Your task to perform on an android device: Search for "acer nitro" on bestbuy, select the first entry, add it to the cart, then select checkout. Image 0: 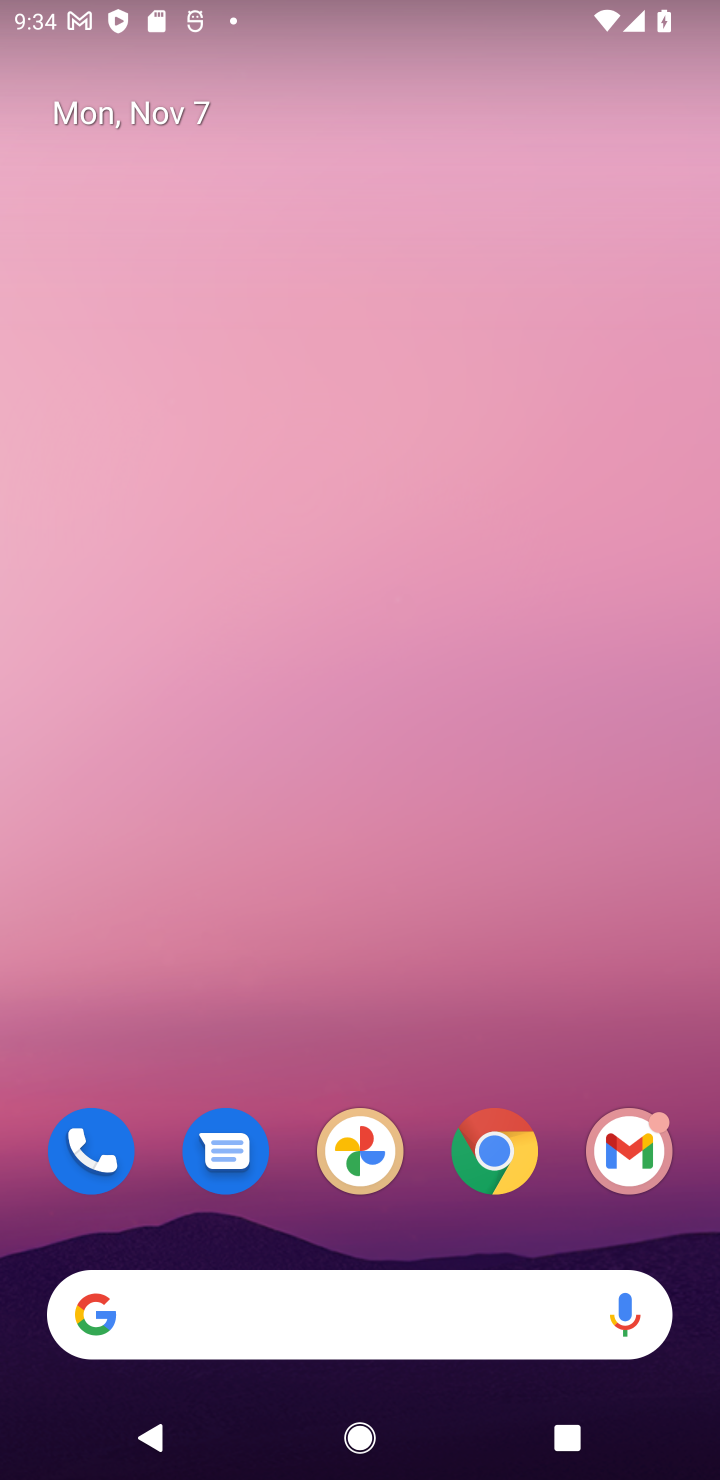
Step 0: click (490, 1162)
Your task to perform on an android device: Search for "acer nitro" on bestbuy, select the first entry, add it to the cart, then select checkout. Image 1: 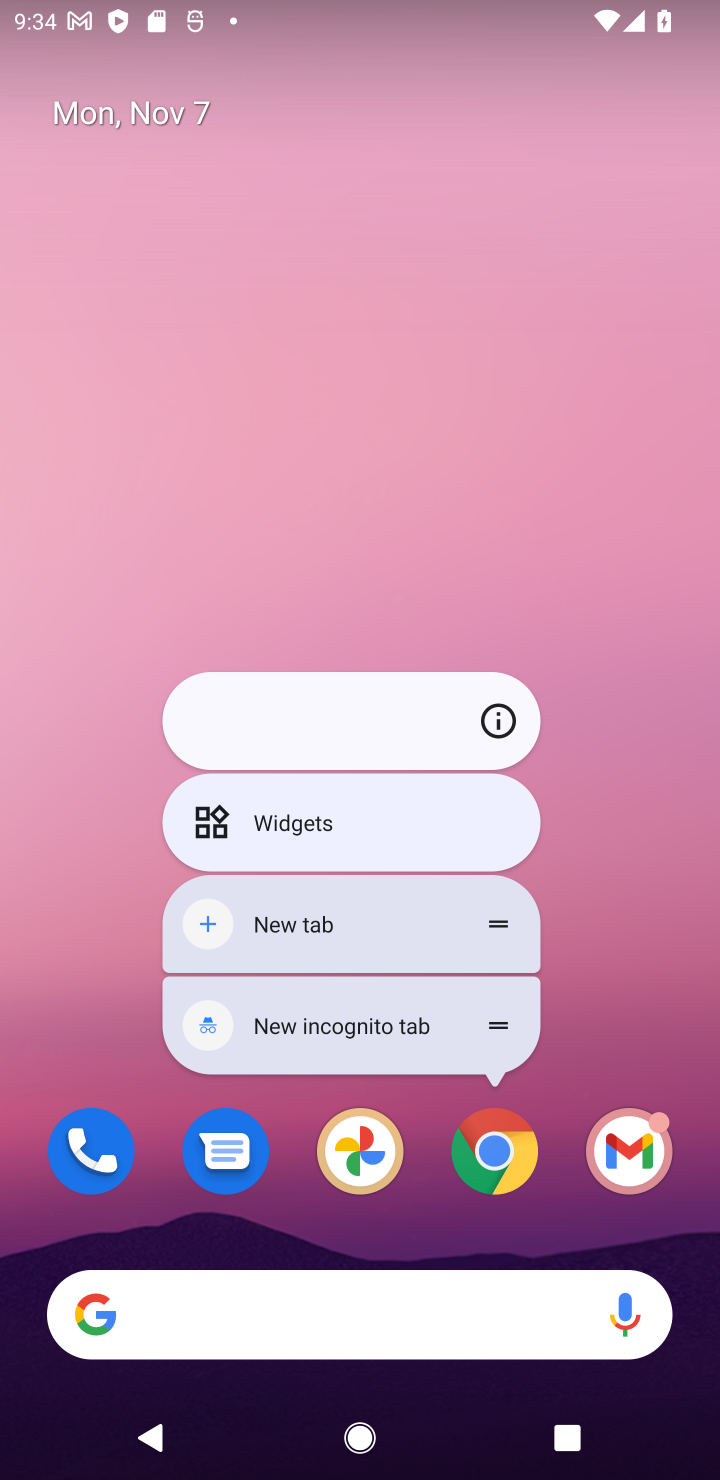
Step 1: click (490, 1164)
Your task to perform on an android device: Search for "acer nitro" on bestbuy, select the first entry, add it to the cart, then select checkout. Image 2: 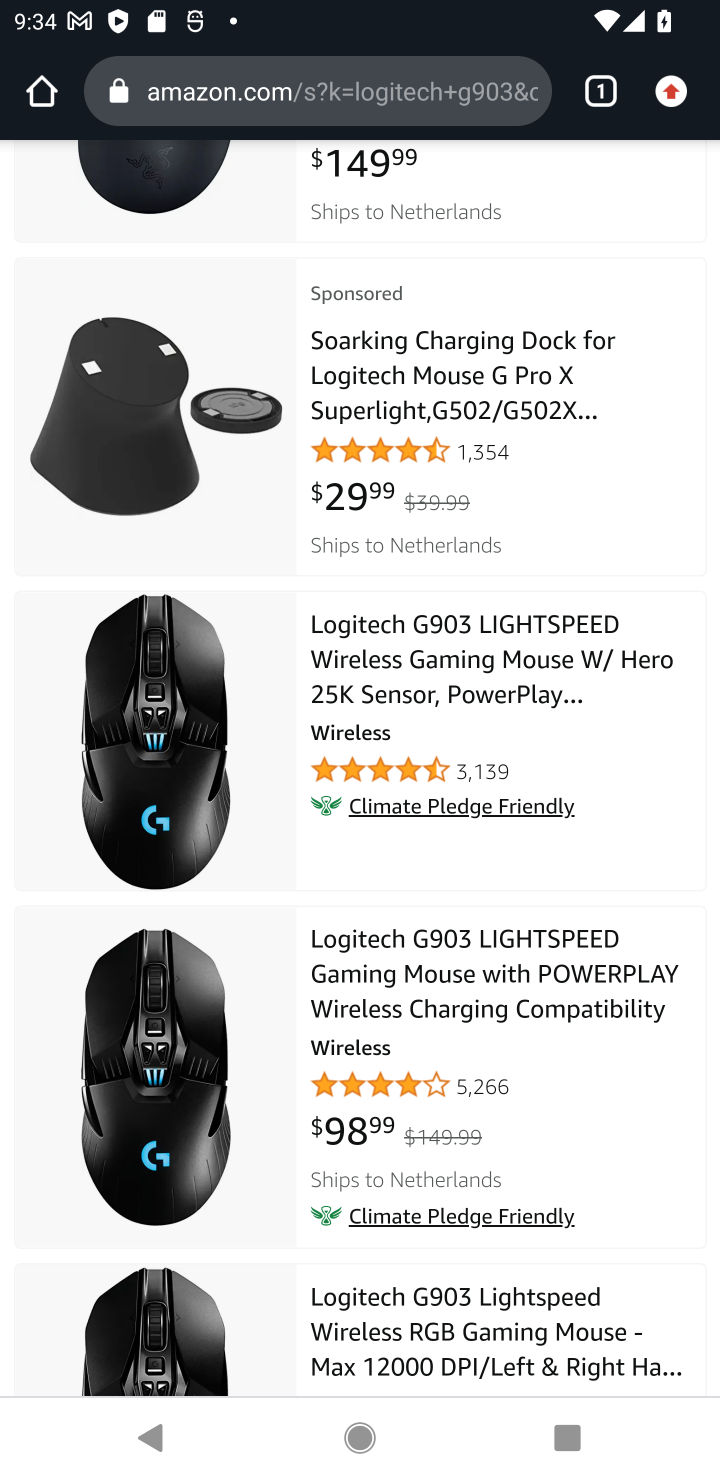
Step 2: drag from (388, 172) to (379, 1243)
Your task to perform on an android device: Search for "acer nitro" on bestbuy, select the first entry, add it to the cart, then select checkout. Image 3: 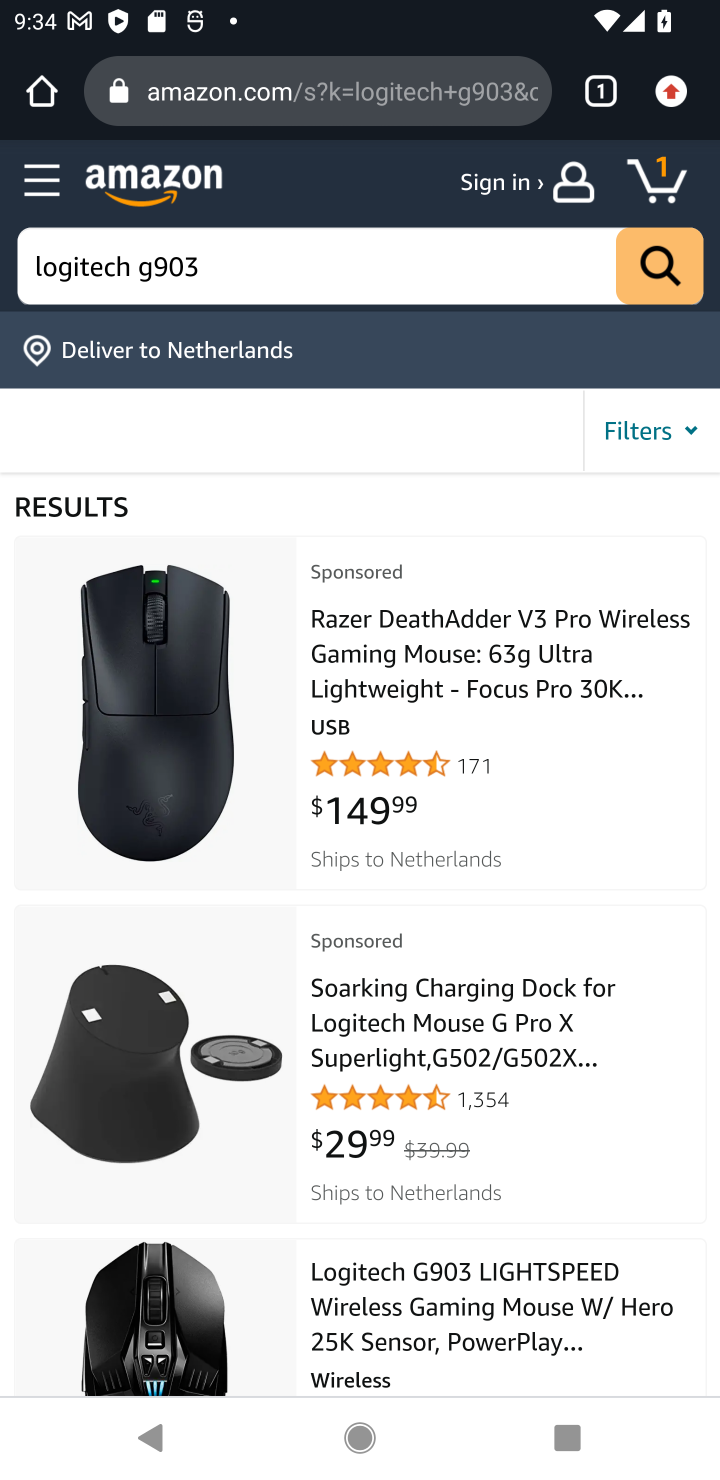
Step 3: click (359, 63)
Your task to perform on an android device: Search for "acer nitro" on bestbuy, select the first entry, add it to the cart, then select checkout. Image 4: 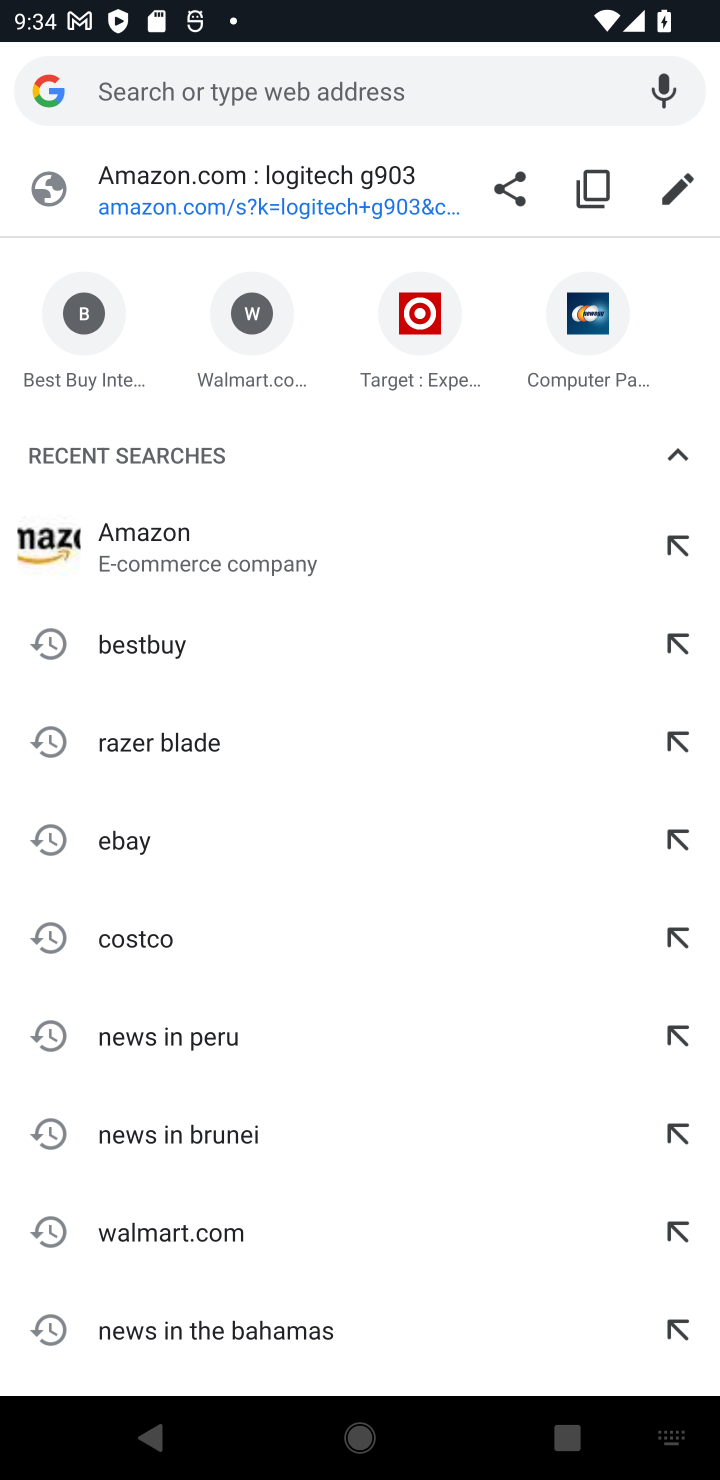
Step 4: click (102, 639)
Your task to perform on an android device: Search for "acer nitro" on bestbuy, select the first entry, add it to the cart, then select checkout. Image 5: 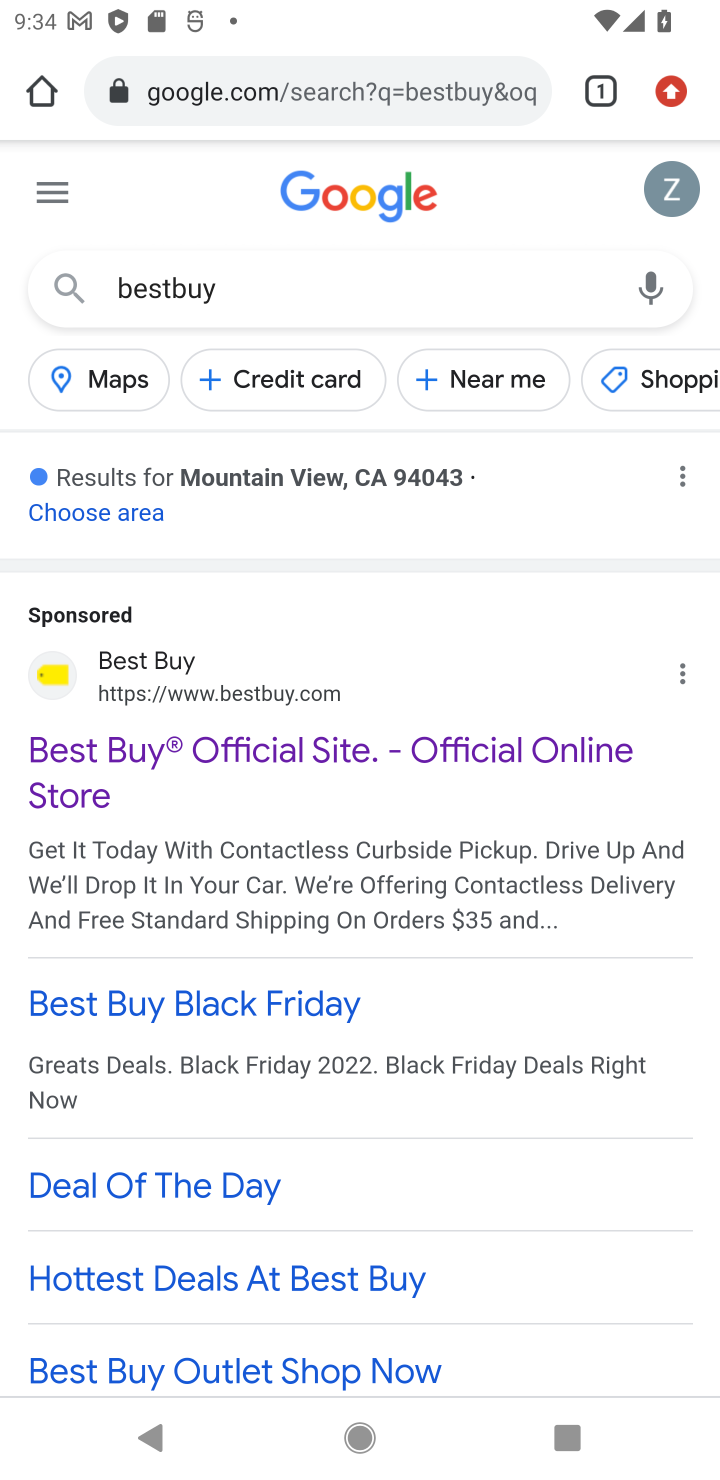
Step 5: click (238, 751)
Your task to perform on an android device: Search for "acer nitro" on bestbuy, select the first entry, add it to the cart, then select checkout. Image 6: 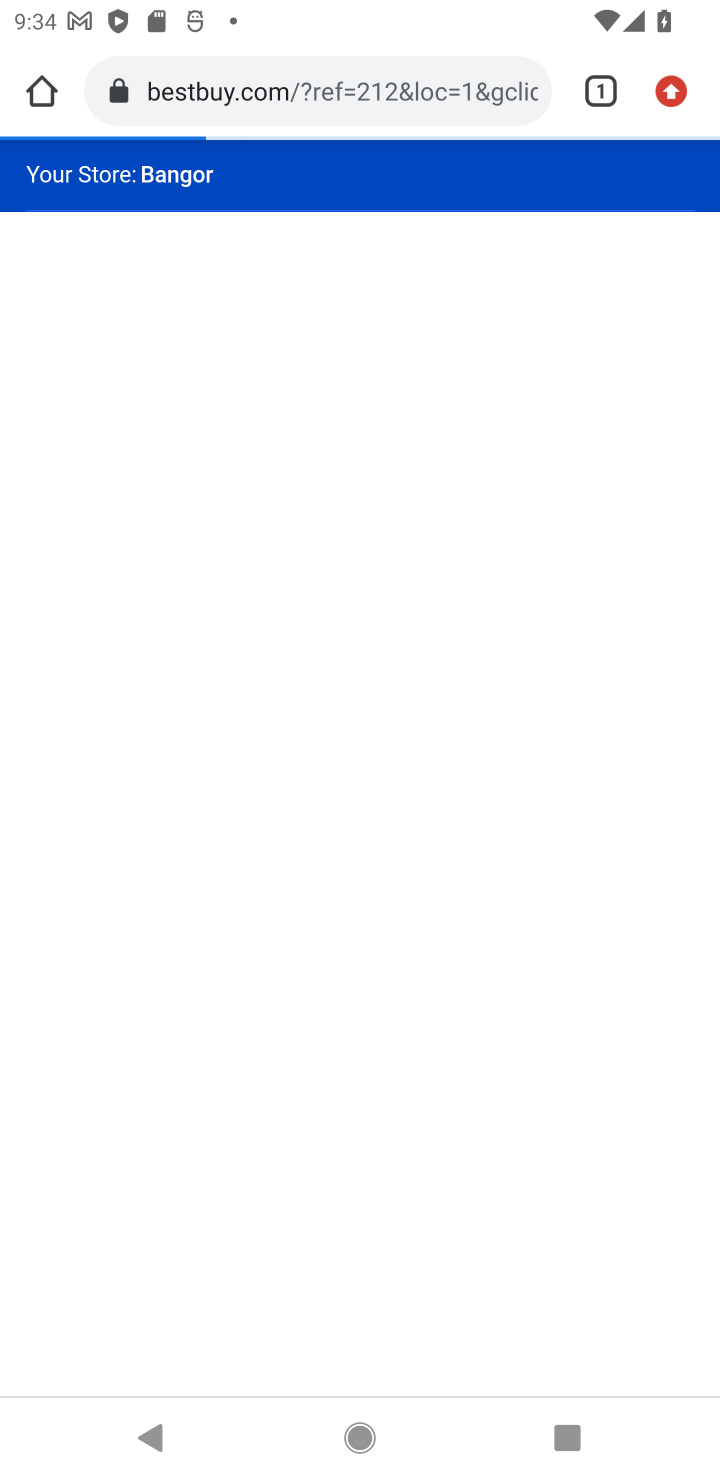
Step 6: click (319, 747)
Your task to perform on an android device: Search for "acer nitro" on bestbuy, select the first entry, add it to the cart, then select checkout. Image 7: 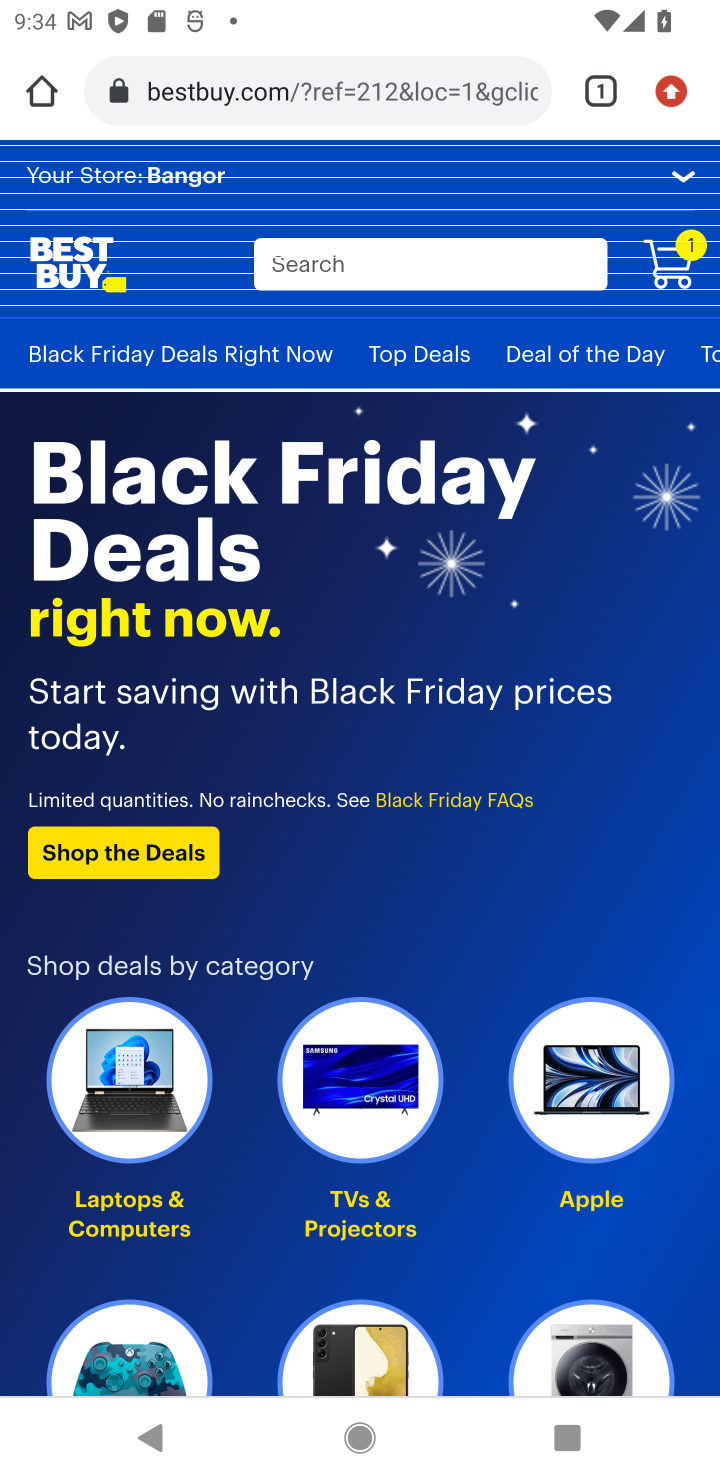
Step 7: click (379, 268)
Your task to perform on an android device: Search for "acer nitro" on bestbuy, select the first entry, add it to the cart, then select checkout. Image 8: 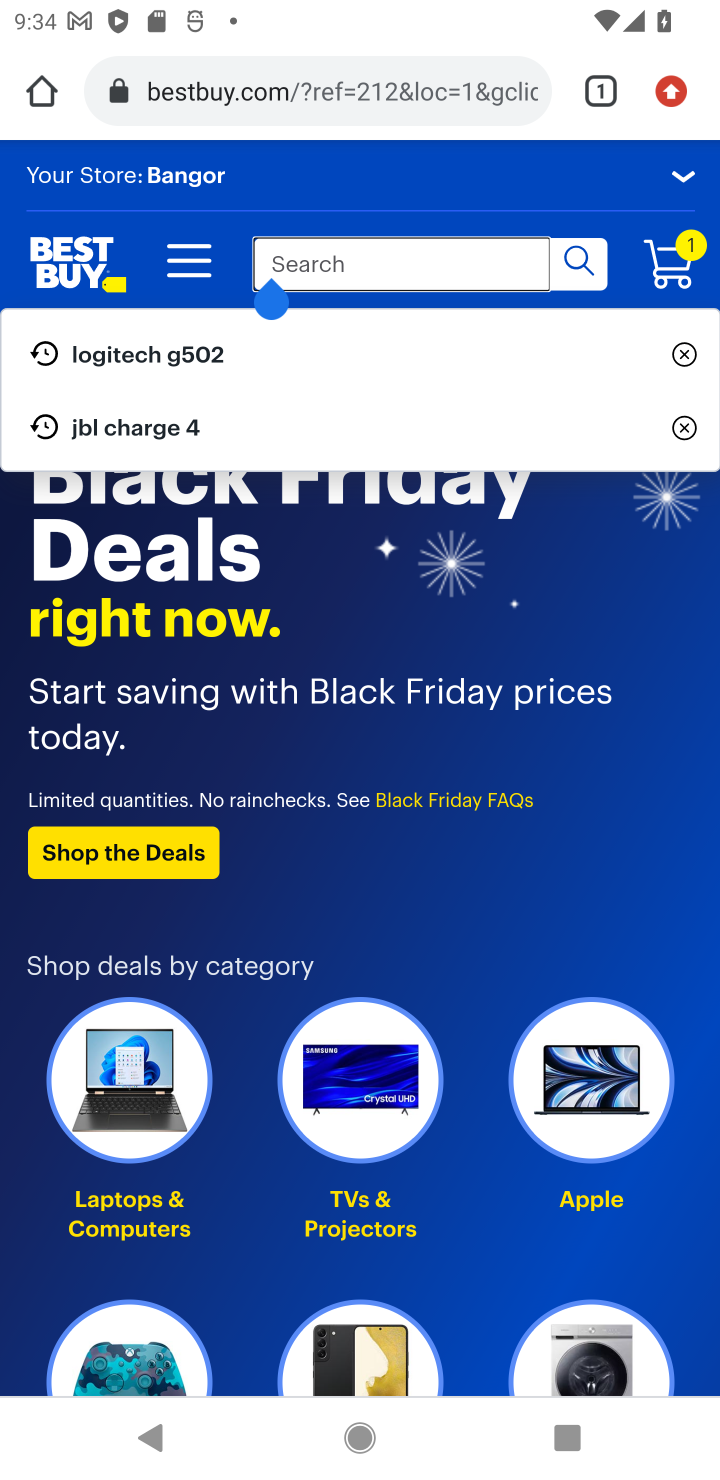
Step 8: click (386, 253)
Your task to perform on an android device: Search for "acer nitro" on bestbuy, select the first entry, add it to the cart, then select checkout. Image 9: 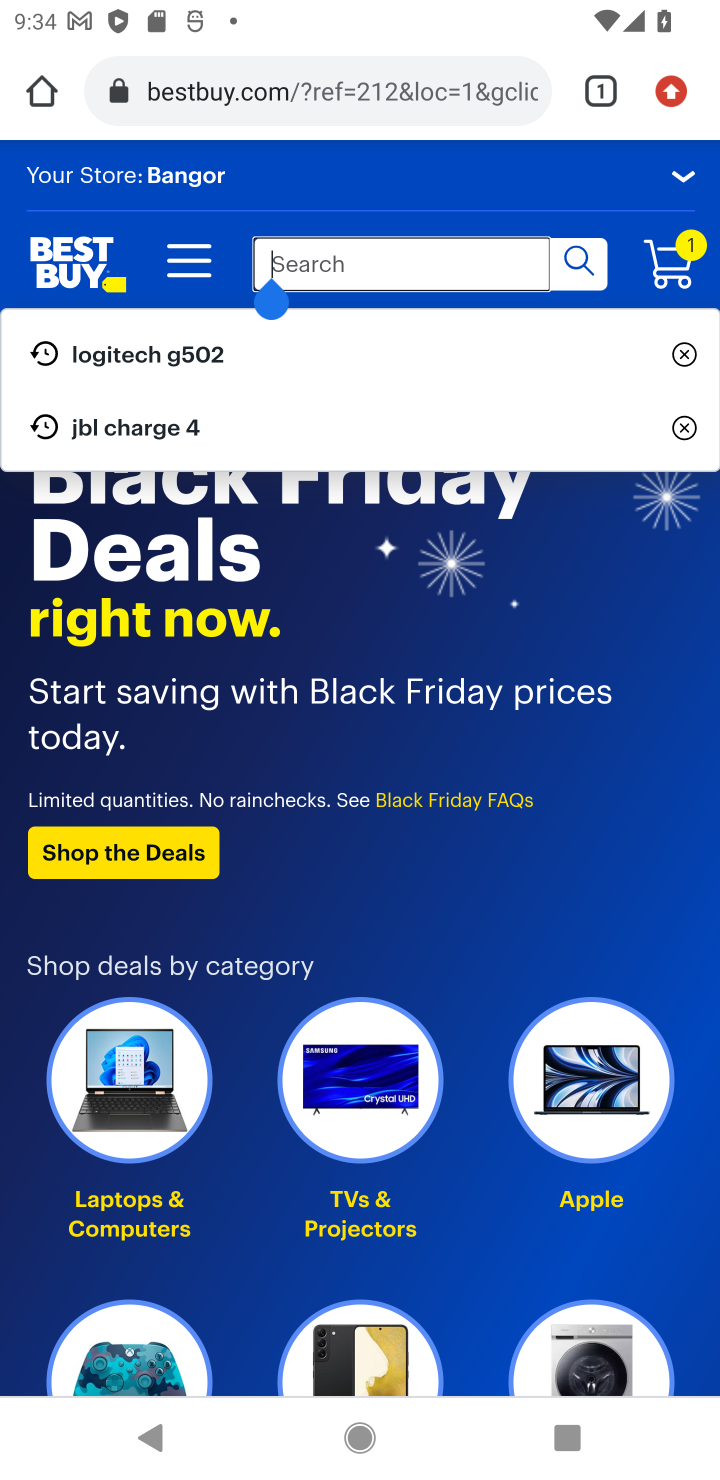
Step 9: type "acer nitro"
Your task to perform on an android device: Search for "acer nitro" on bestbuy, select the first entry, add it to the cart, then select checkout. Image 10: 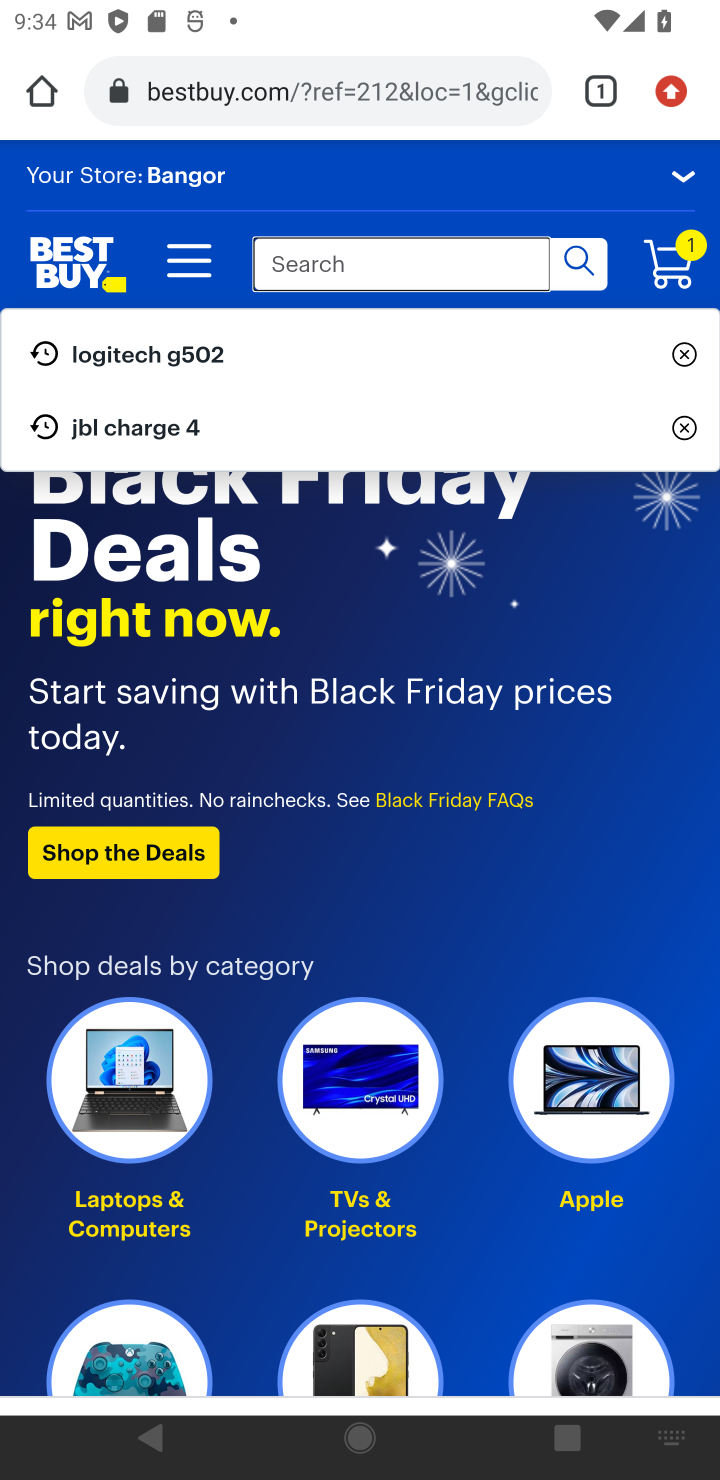
Step 10: press enter
Your task to perform on an android device: Search for "acer nitro" on bestbuy, select the first entry, add it to the cart, then select checkout. Image 11: 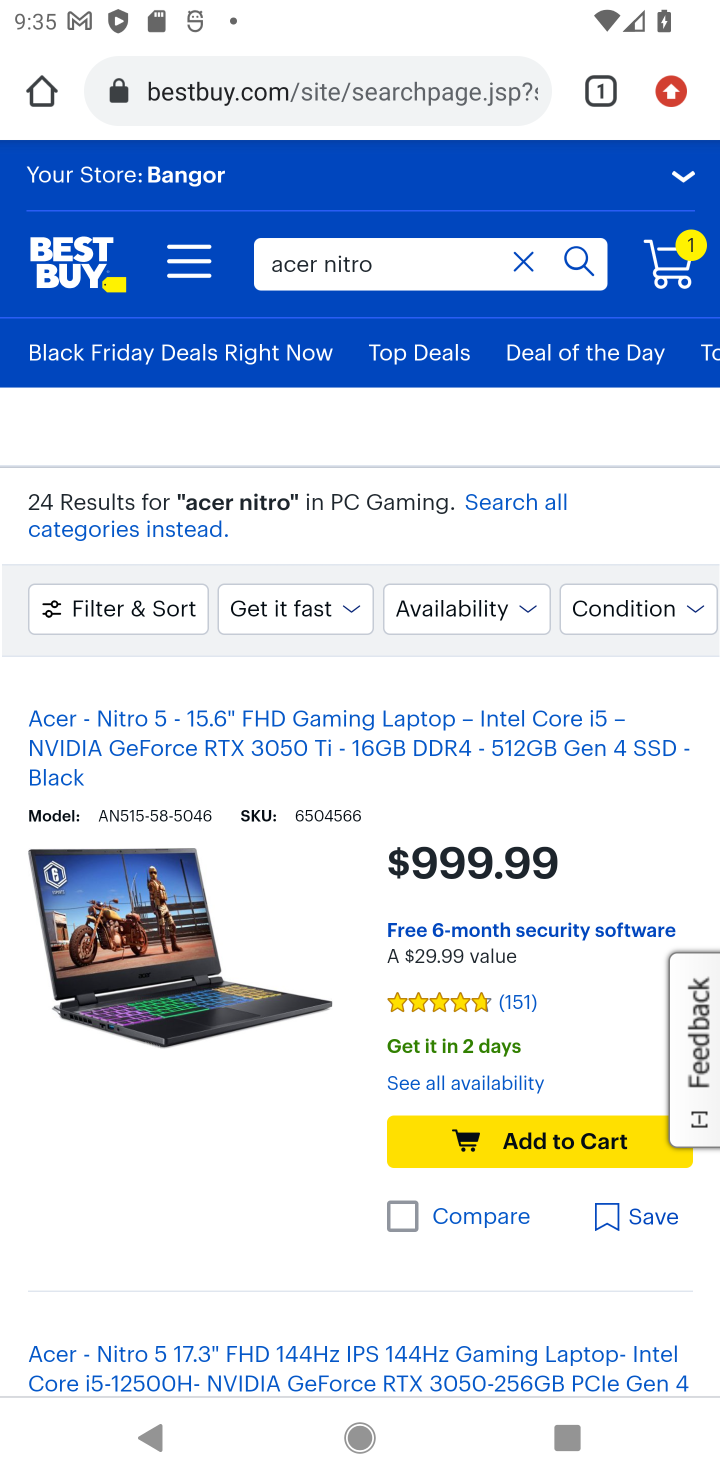
Step 11: click (598, 1146)
Your task to perform on an android device: Search for "acer nitro" on bestbuy, select the first entry, add it to the cart, then select checkout. Image 12: 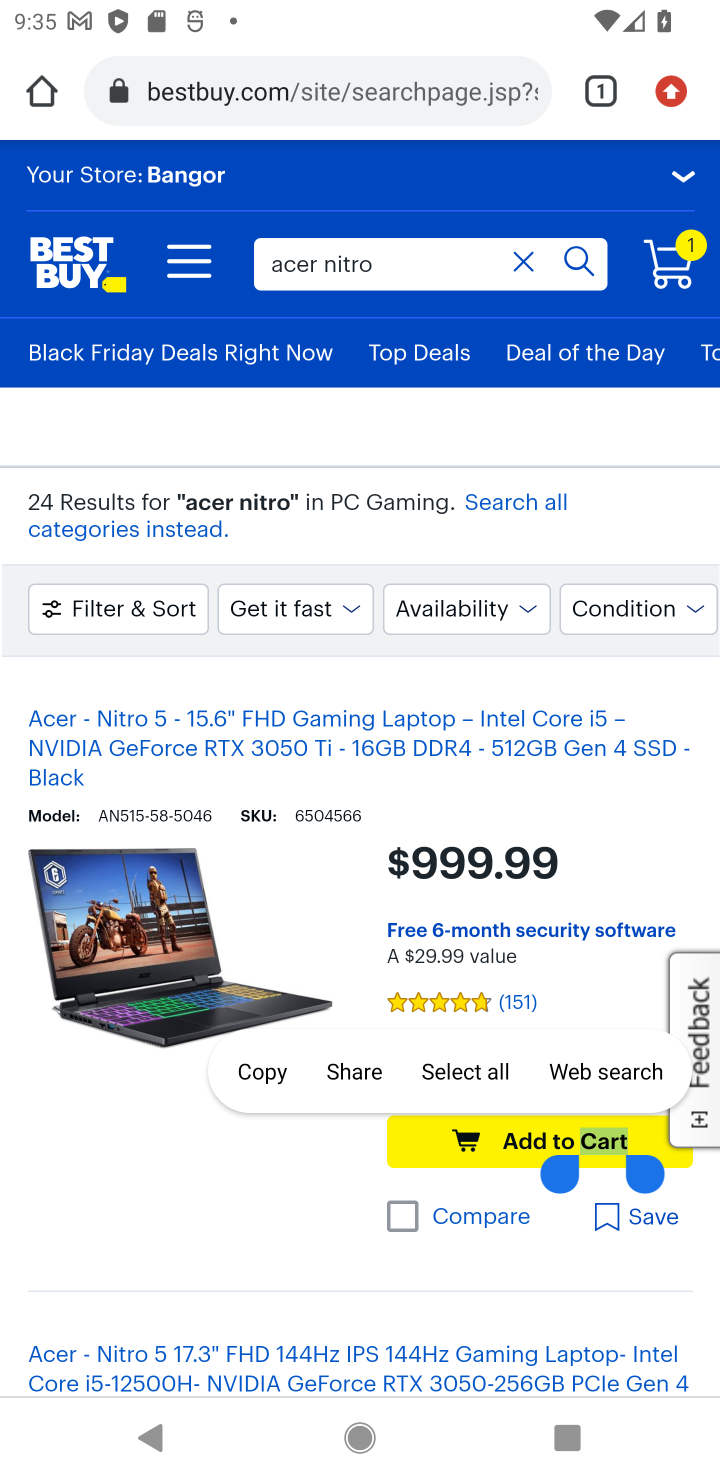
Step 12: click (546, 1135)
Your task to perform on an android device: Search for "acer nitro" on bestbuy, select the first entry, add it to the cart, then select checkout. Image 13: 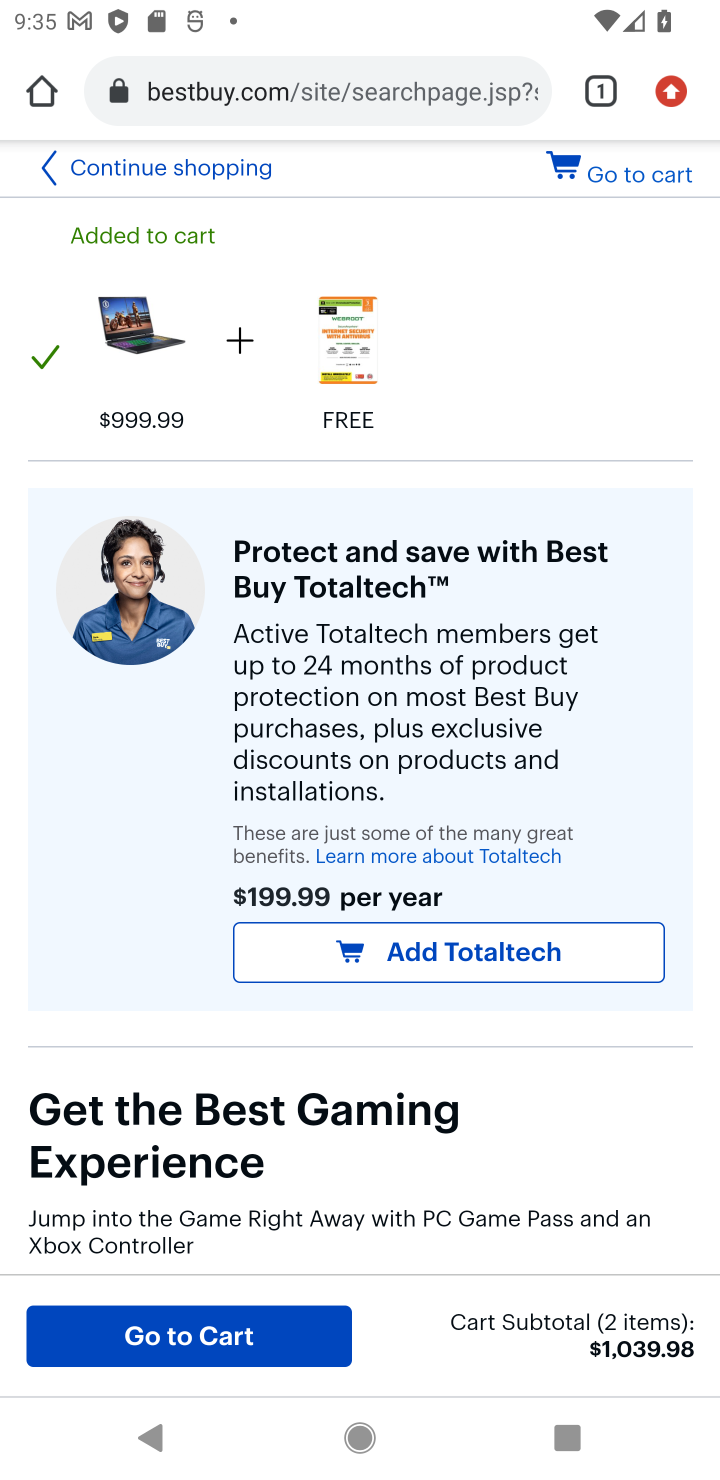
Step 13: click (630, 161)
Your task to perform on an android device: Search for "acer nitro" on bestbuy, select the first entry, add it to the cart, then select checkout. Image 14: 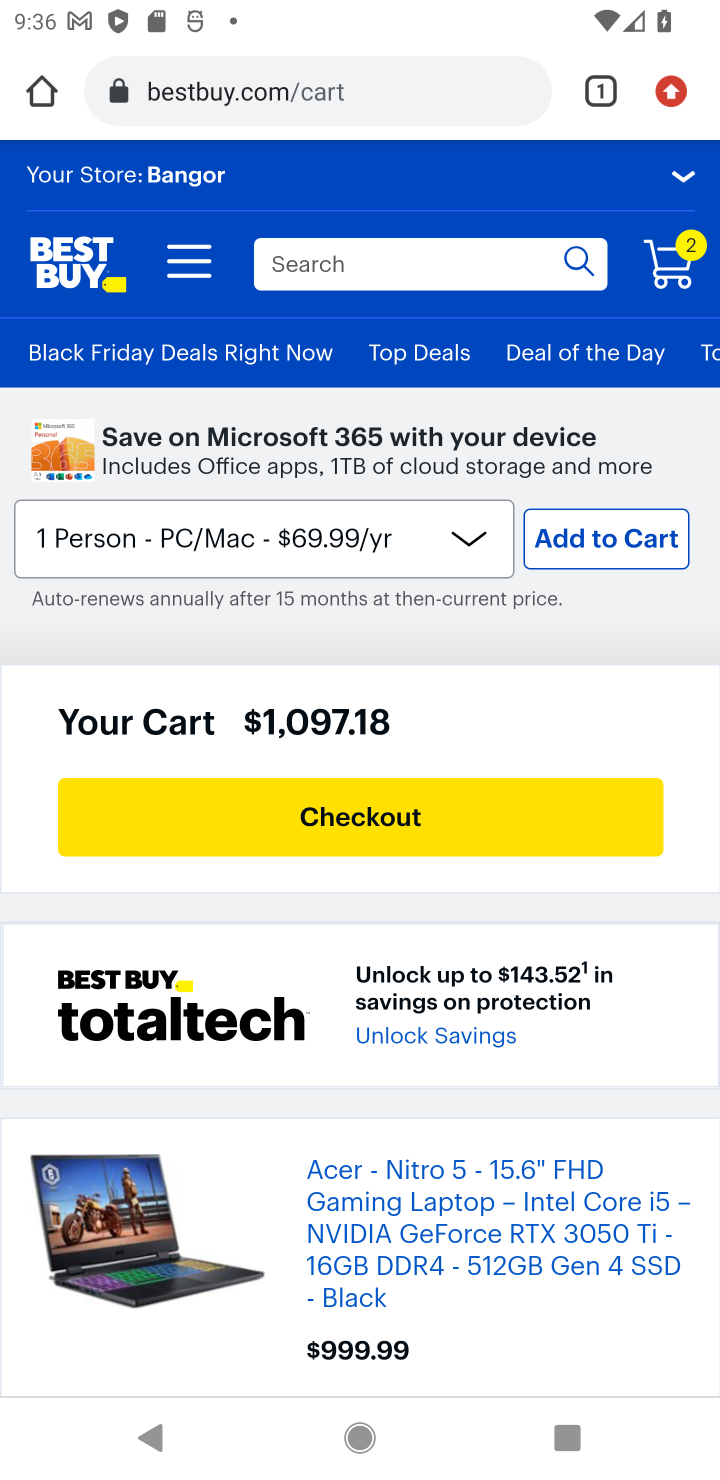
Step 14: drag from (319, 1263) to (432, 382)
Your task to perform on an android device: Search for "acer nitro" on bestbuy, select the first entry, add it to the cart, then select checkout. Image 15: 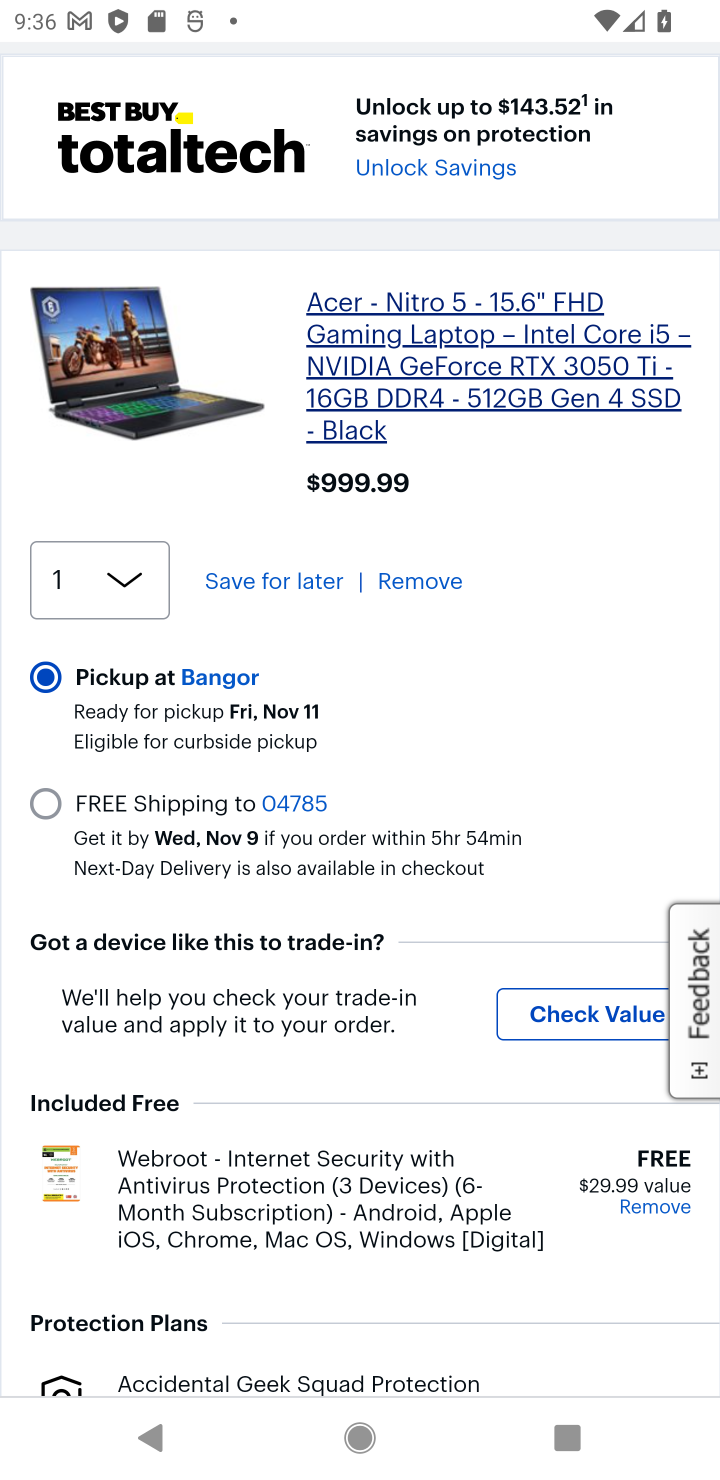
Step 15: drag from (479, 707) to (493, 1265)
Your task to perform on an android device: Search for "acer nitro" on bestbuy, select the first entry, add it to the cart, then select checkout. Image 16: 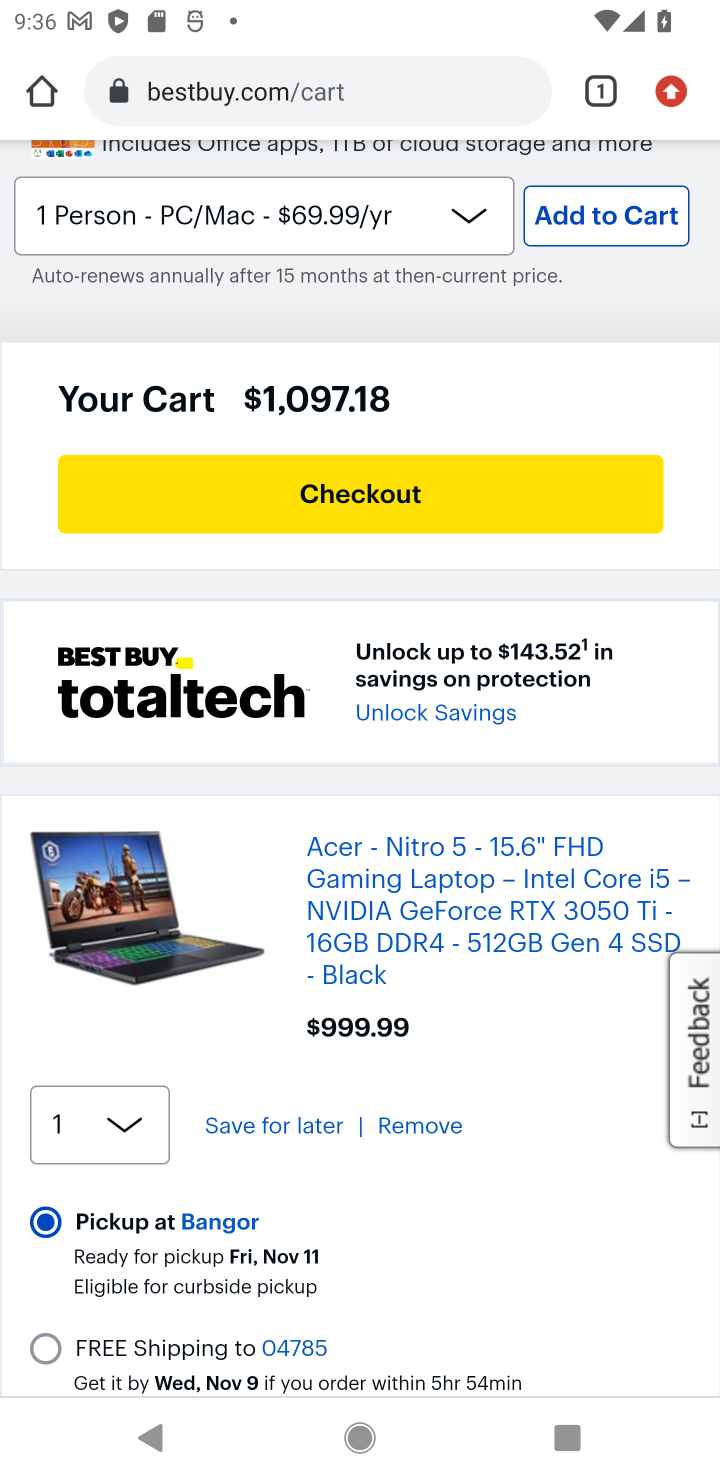
Step 16: click (374, 493)
Your task to perform on an android device: Search for "acer nitro" on bestbuy, select the first entry, add it to the cart, then select checkout. Image 17: 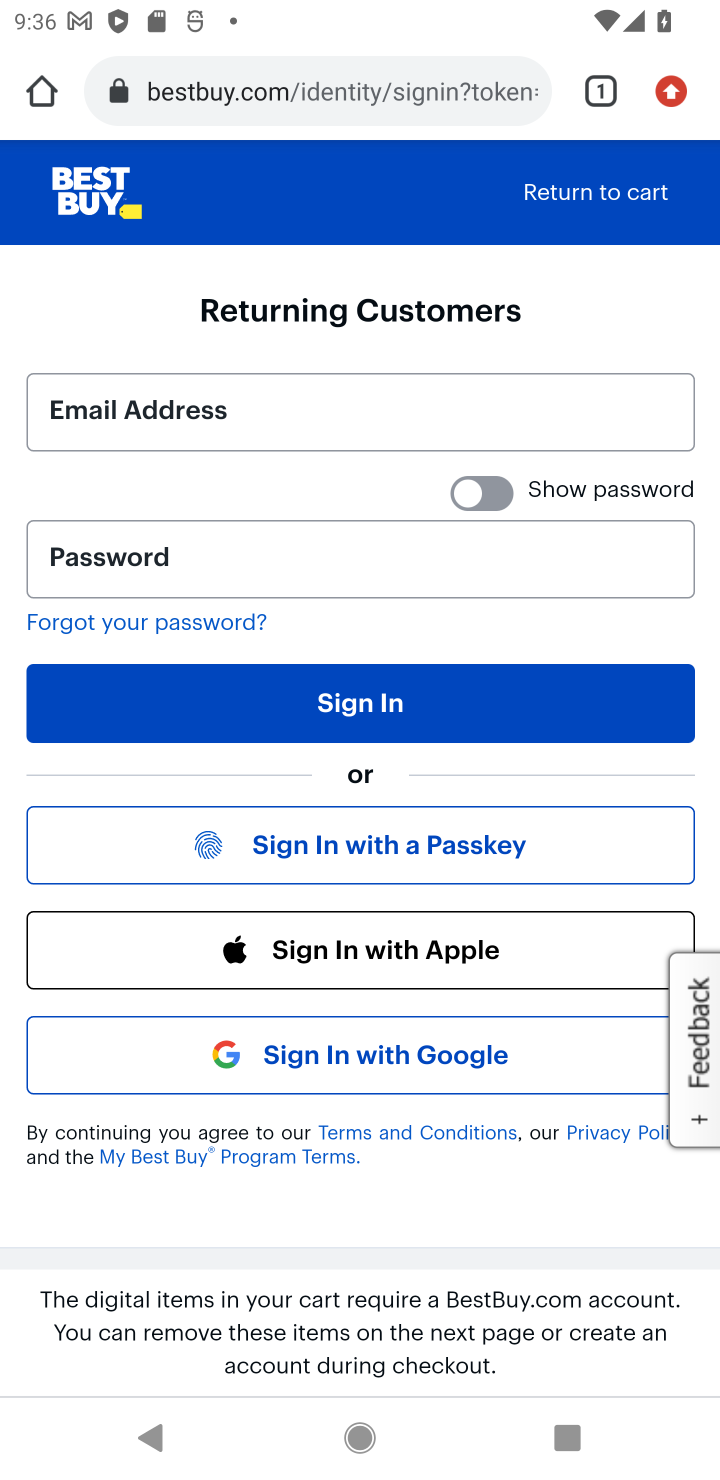
Step 17: task complete